Your task to perform on an android device: Open ESPN.com Image 0: 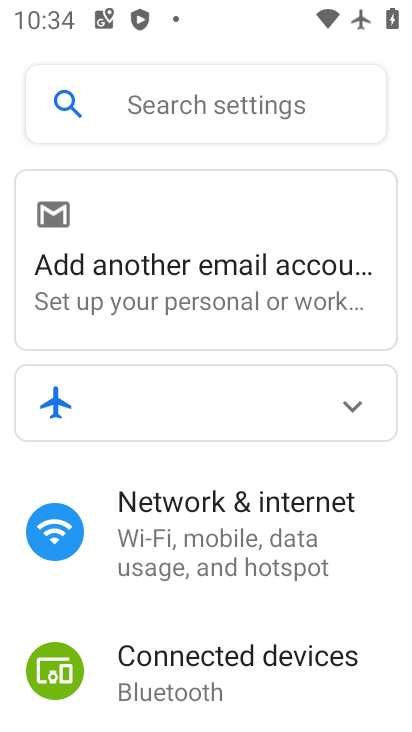
Step 0: press home button
Your task to perform on an android device: Open ESPN.com Image 1: 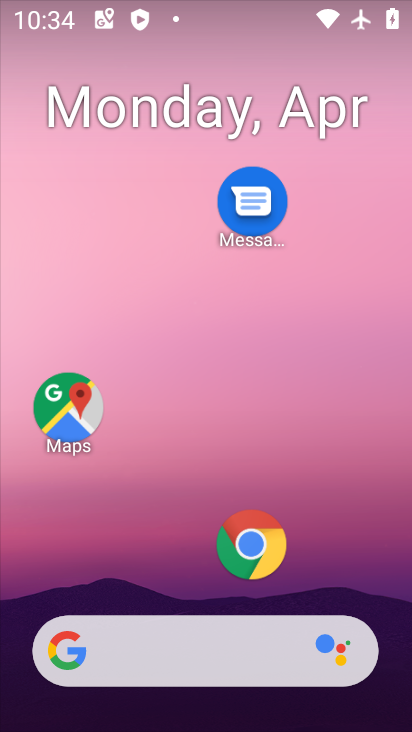
Step 1: click (246, 539)
Your task to perform on an android device: Open ESPN.com Image 2: 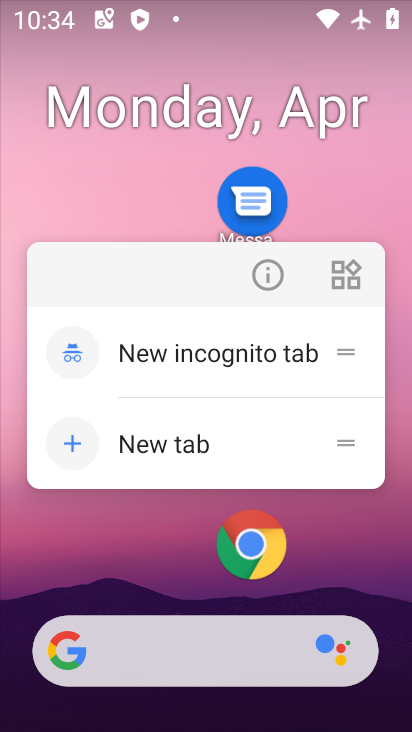
Step 2: click (246, 539)
Your task to perform on an android device: Open ESPN.com Image 3: 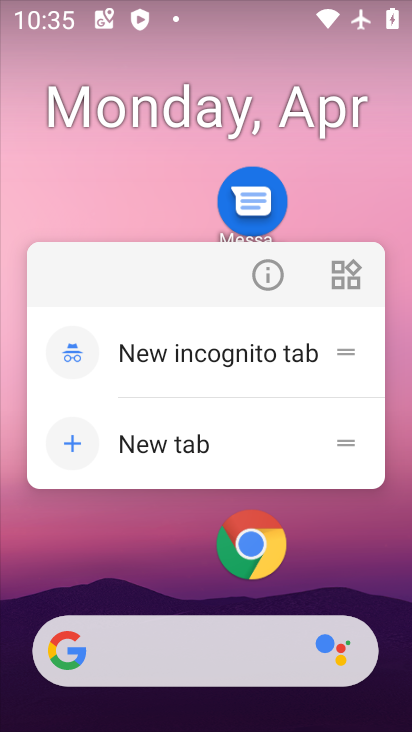
Step 3: click (185, 570)
Your task to perform on an android device: Open ESPN.com Image 4: 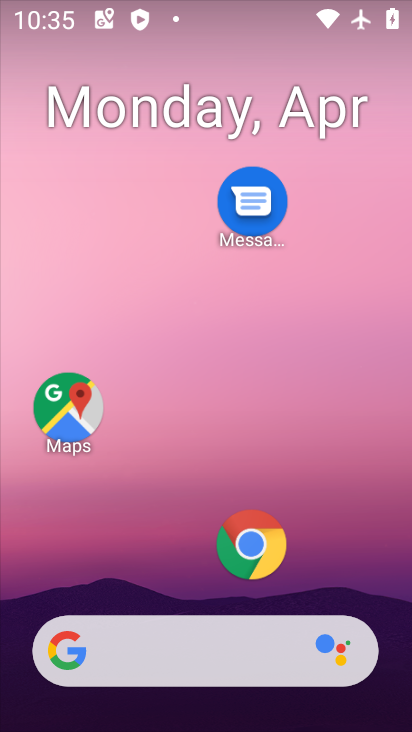
Step 4: drag from (196, 590) to (244, 72)
Your task to perform on an android device: Open ESPN.com Image 5: 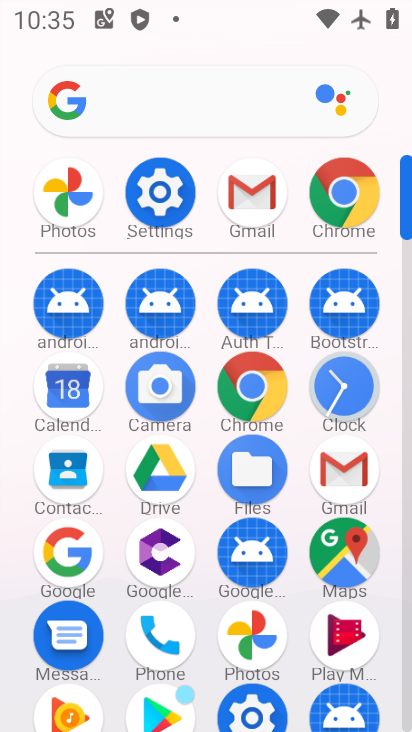
Step 5: click (342, 188)
Your task to perform on an android device: Open ESPN.com Image 6: 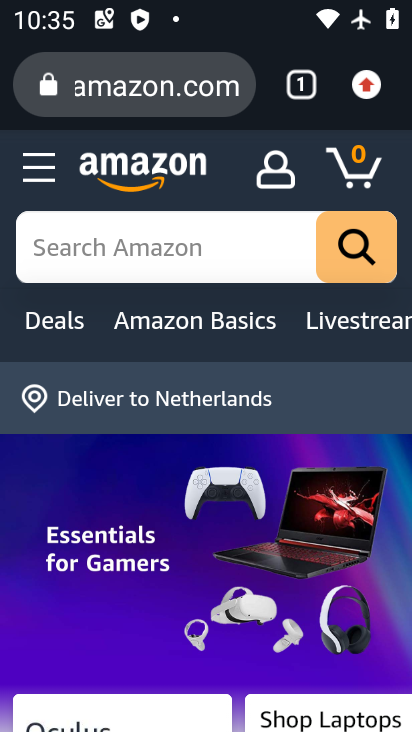
Step 6: press back button
Your task to perform on an android device: Open ESPN.com Image 7: 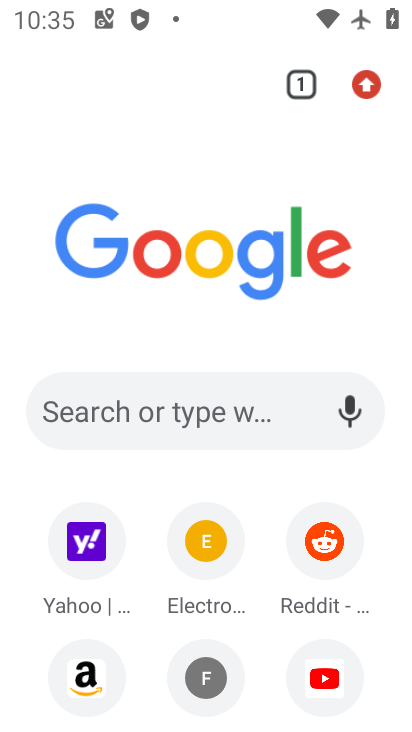
Step 7: click (150, 404)
Your task to perform on an android device: Open ESPN.com Image 8: 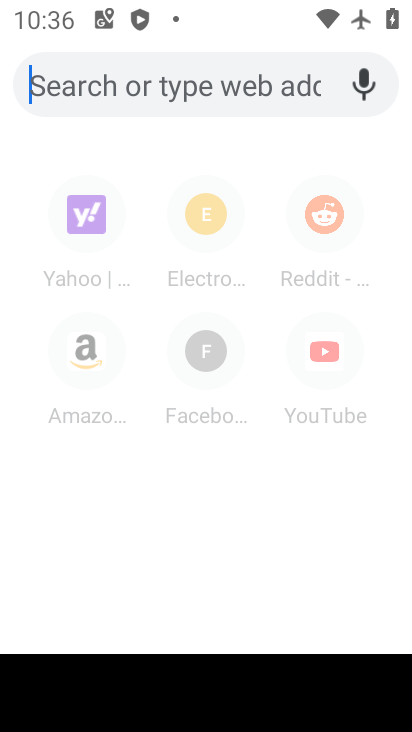
Step 8: type "espn.com"
Your task to perform on an android device: Open ESPN.com Image 9: 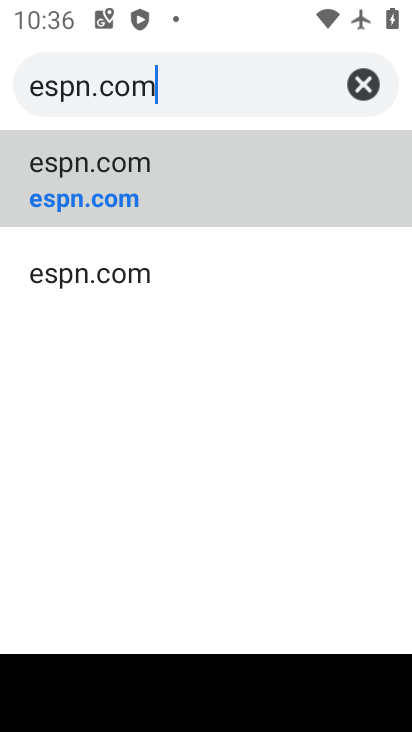
Step 9: click (93, 190)
Your task to perform on an android device: Open ESPN.com Image 10: 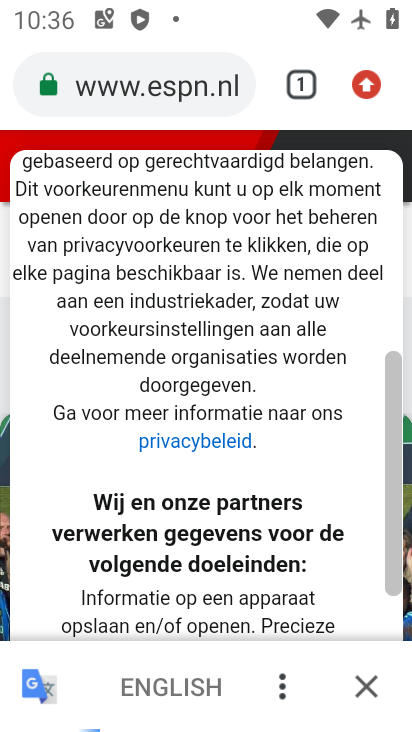
Step 10: click (365, 680)
Your task to perform on an android device: Open ESPN.com Image 11: 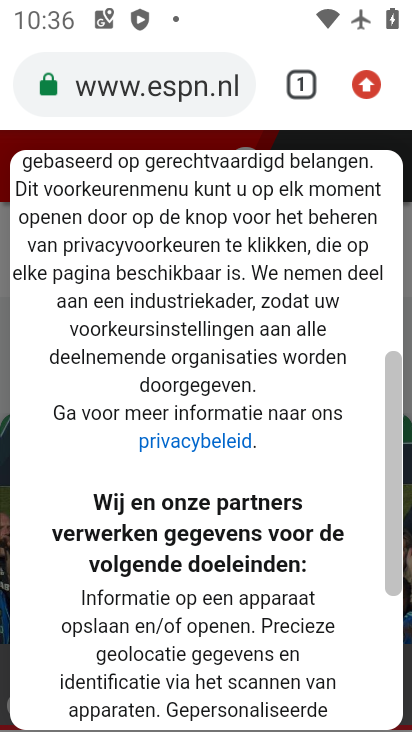
Step 11: drag from (197, 613) to (228, 328)
Your task to perform on an android device: Open ESPN.com Image 12: 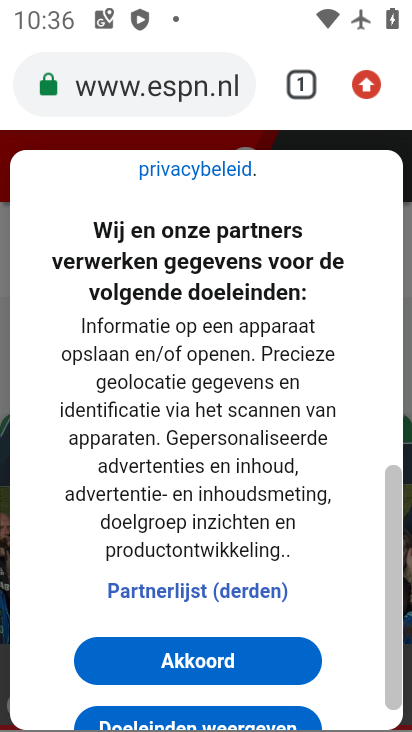
Step 12: click (197, 657)
Your task to perform on an android device: Open ESPN.com Image 13: 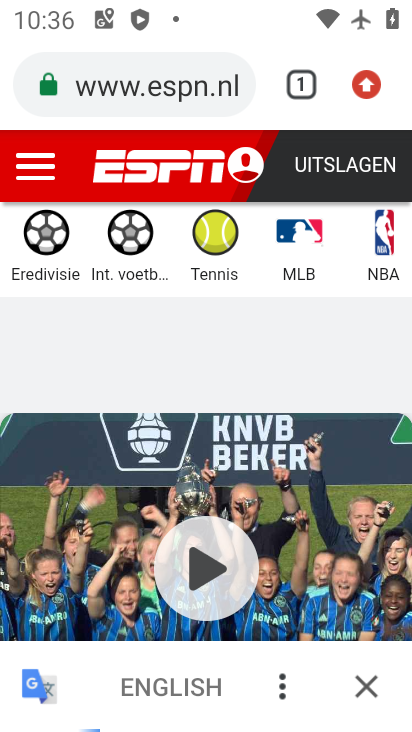
Step 13: click (373, 685)
Your task to perform on an android device: Open ESPN.com Image 14: 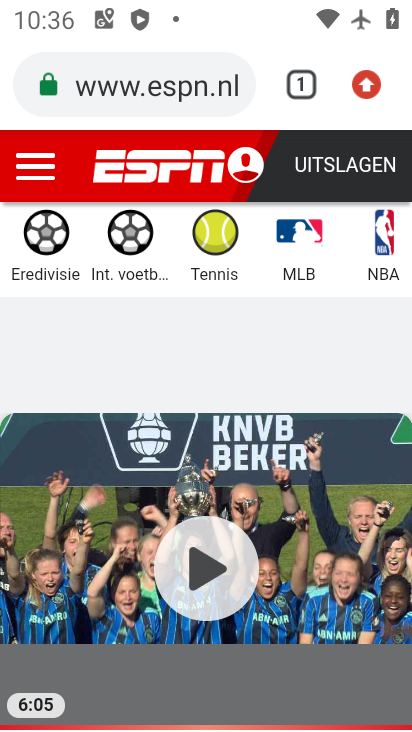
Step 14: task complete